Your task to perform on an android device: When is my next meeting? Image 0: 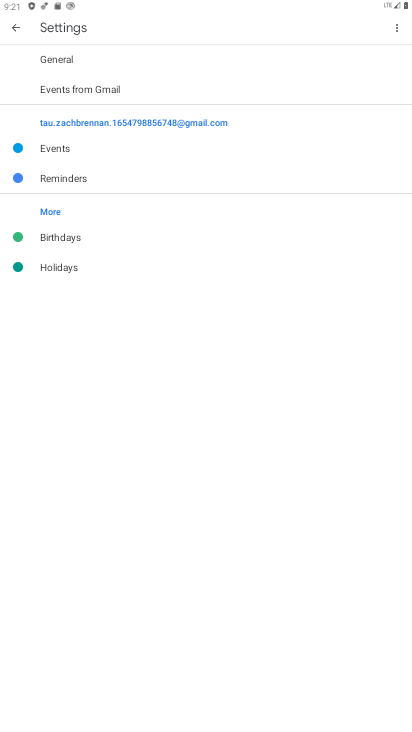
Step 0: press home button
Your task to perform on an android device: When is my next meeting? Image 1: 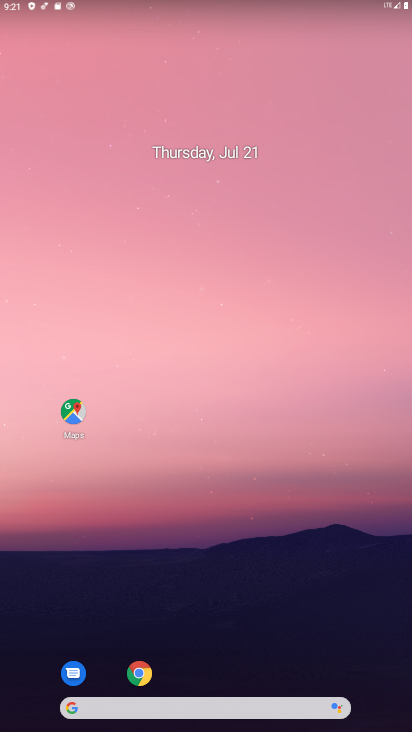
Step 1: drag from (234, 612) to (283, 73)
Your task to perform on an android device: When is my next meeting? Image 2: 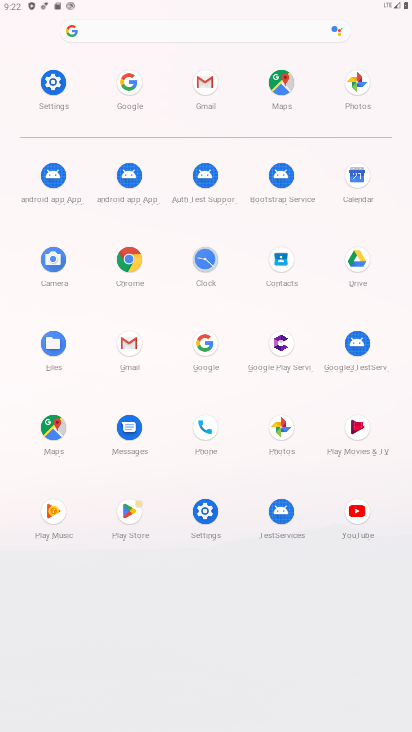
Step 2: click (366, 177)
Your task to perform on an android device: When is my next meeting? Image 3: 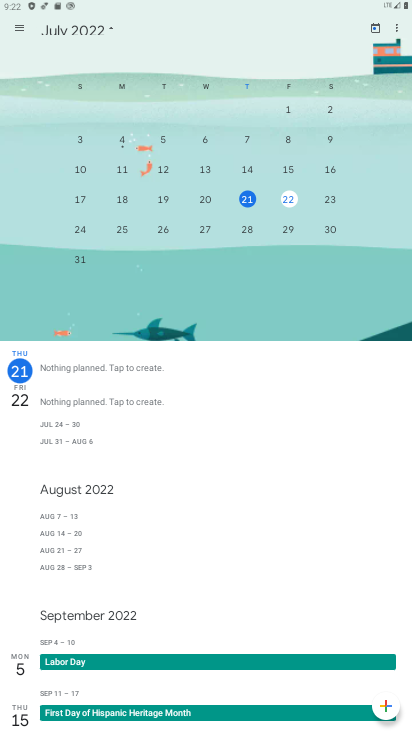
Step 3: task complete